Your task to perform on an android device: Is it going to rain this weekend? Image 0: 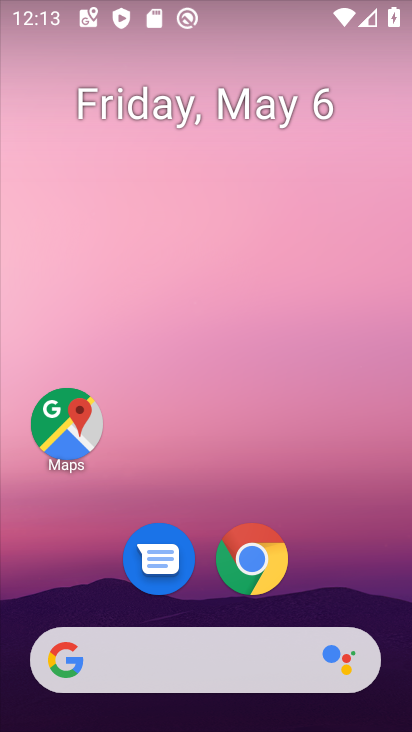
Step 0: drag from (331, 587) to (328, 66)
Your task to perform on an android device: Is it going to rain this weekend? Image 1: 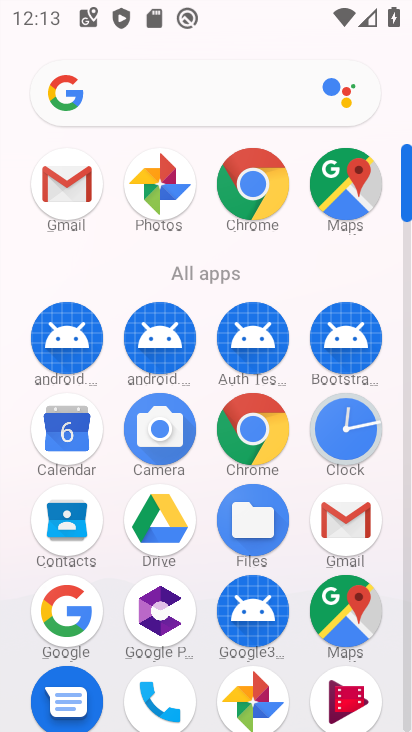
Step 1: click (149, 104)
Your task to perform on an android device: Is it going to rain this weekend? Image 2: 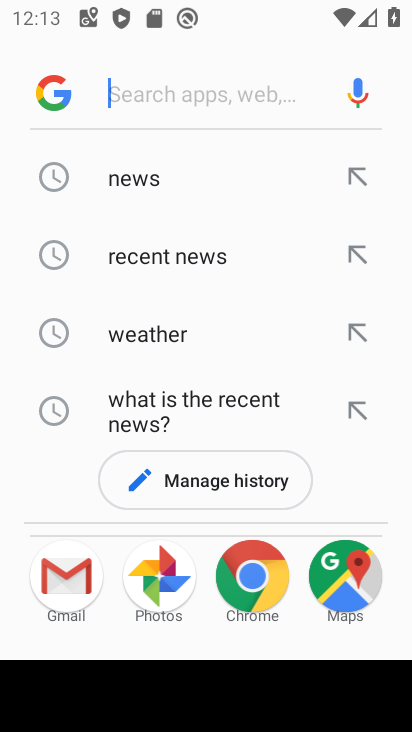
Step 2: type "is it going to rain this weekend"
Your task to perform on an android device: Is it going to rain this weekend? Image 3: 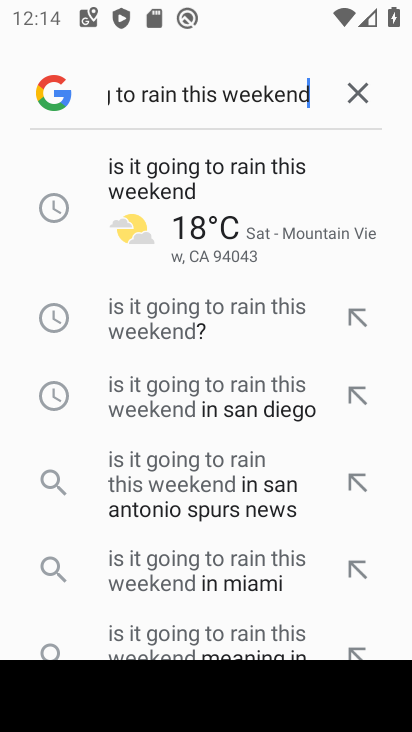
Step 3: click (260, 185)
Your task to perform on an android device: Is it going to rain this weekend? Image 4: 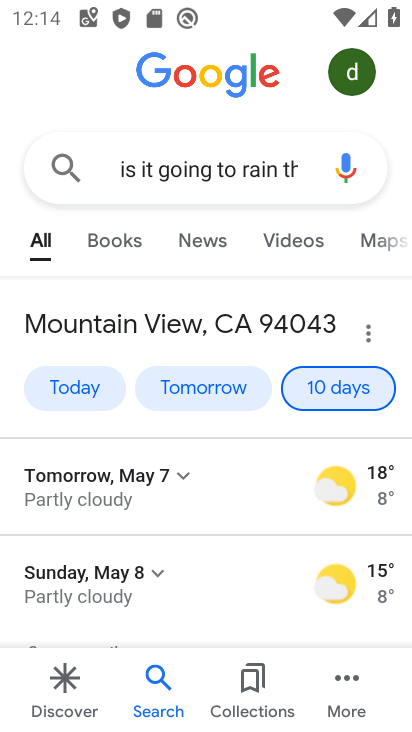
Step 4: task complete